Your task to perform on an android device: turn off priority inbox in the gmail app Image 0: 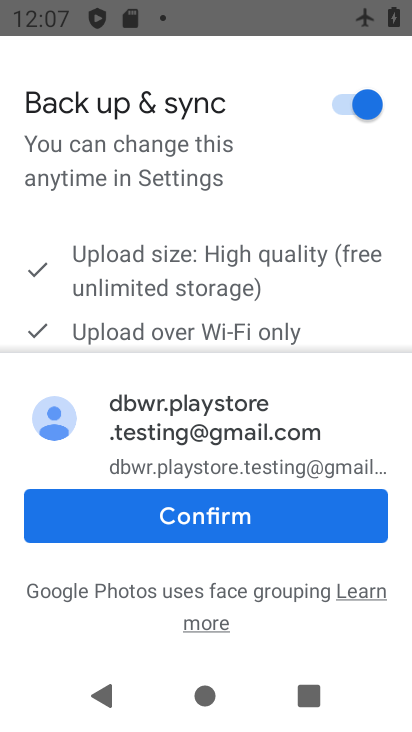
Step 0: press back button
Your task to perform on an android device: turn off priority inbox in the gmail app Image 1: 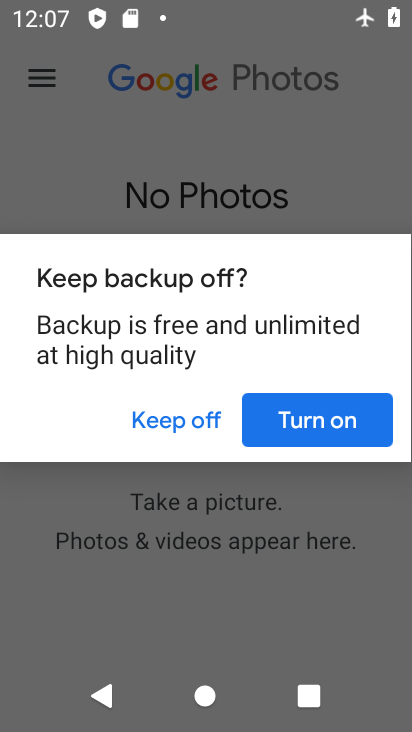
Step 1: press home button
Your task to perform on an android device: turn off priority inbox in the gmail app Image 2: 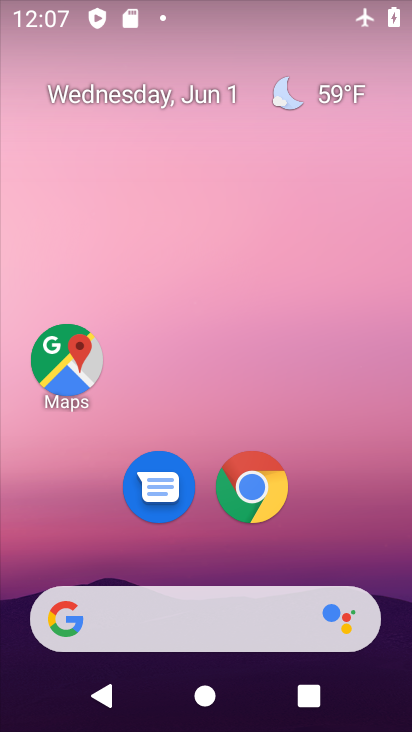
Step 2: drag from (196, 571) to (264, 61)
Your task to perform on an android device: turn off priority inbox in the gmail app Image 3: 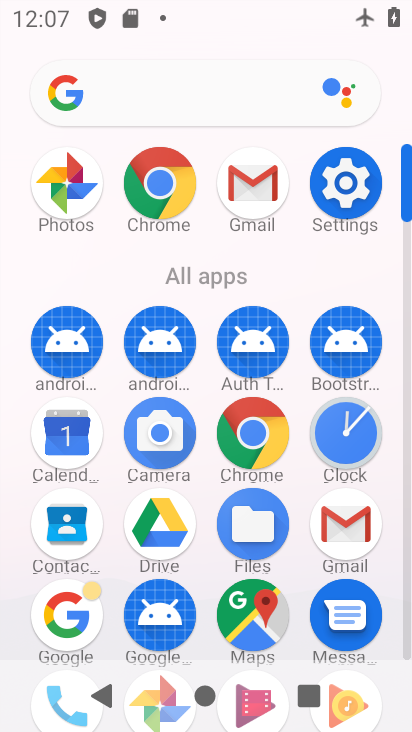
Step 3: click (249, 183)
Your task to perform on an android device: turn off priority inbox in the gmail app Image 4: 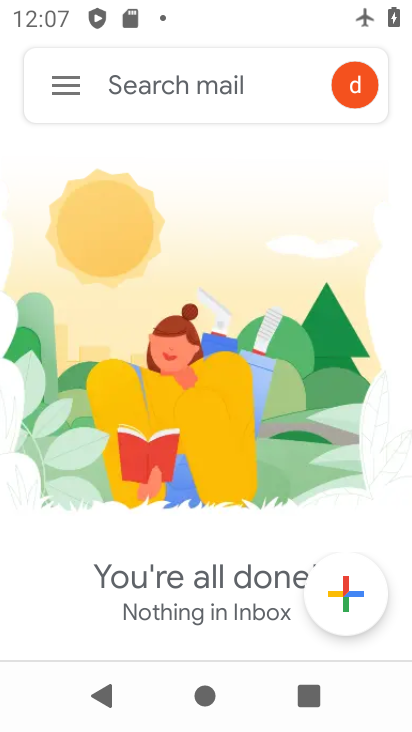
Step 4: click (69, 91)
Your task to perform on an android device: turn off priority inbox in the gmail app Image 5: 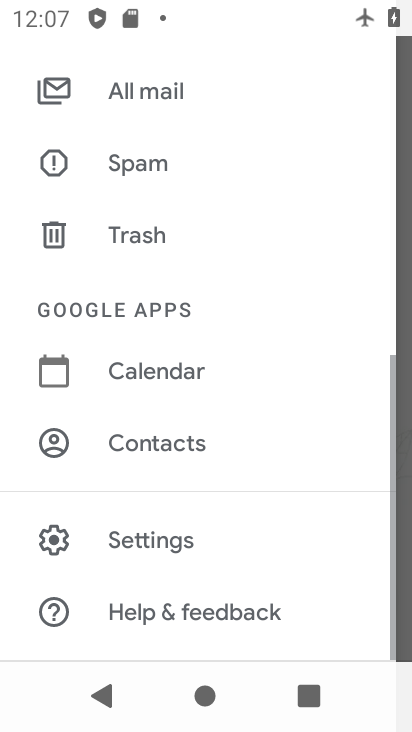
Step 5: click (145, 536)
Your task to perform on an android device: turn off priority inbox in the gmail app Image 6: 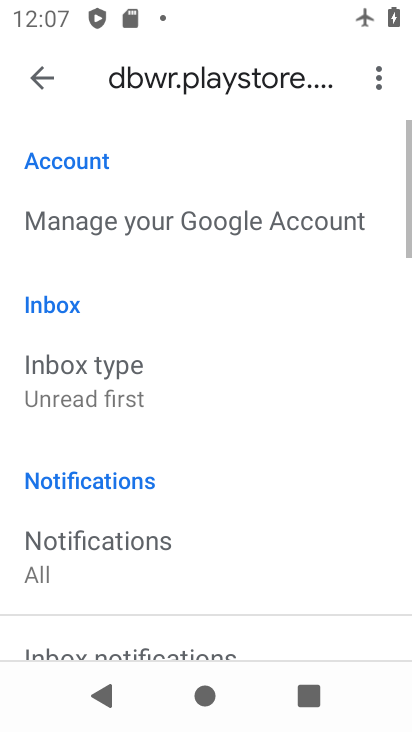
Step 6: click (105, 399)
Your task to perform on an android device: turn off priority inbox in the gmail app Image 7: 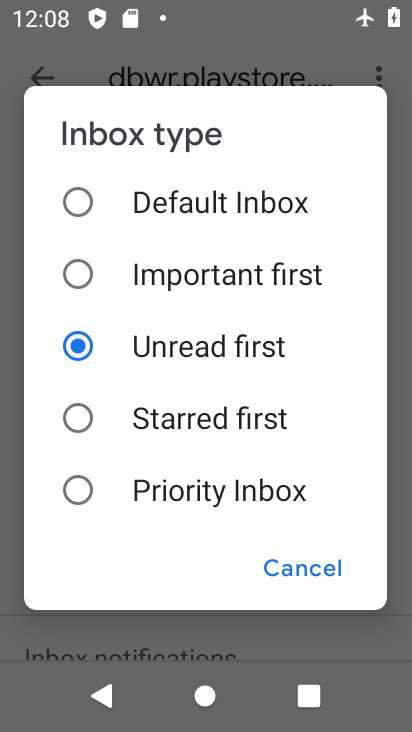
Step 7: task complete